Your task to perform on an android device: Open Google Maps and go to "Timeline" Image 0: 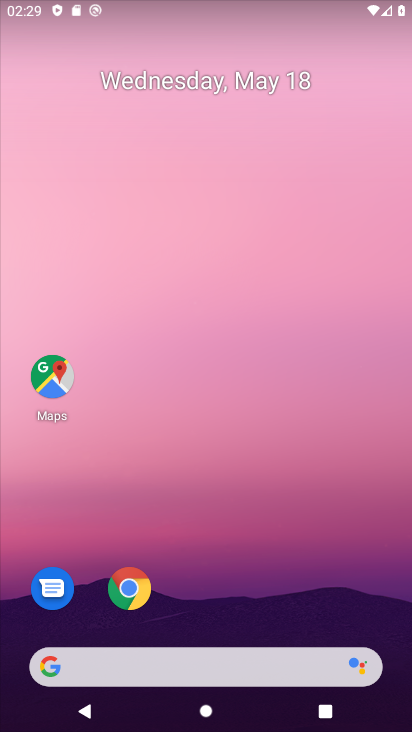
Step 0: click (61, 377)
Your task to perform on an android device: Open Google Maps and go to "Timeline" Image 1: 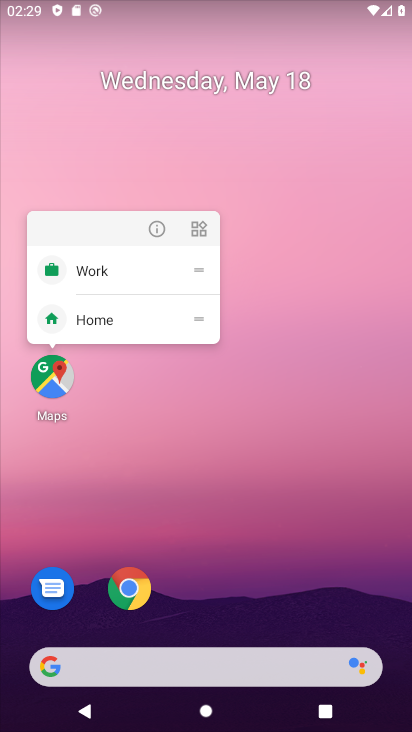
Step 1: click (43, 369)
Your task to perform on an android device: Open Google Maps and go to "Timeline" Image 2: 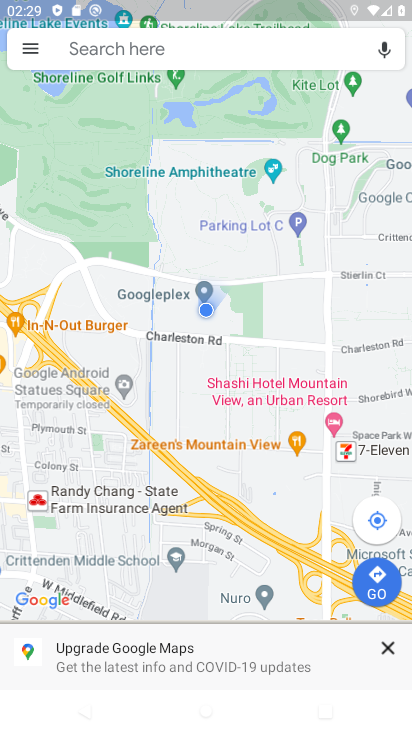
Step 2: click (35, 41)
Your task to perform on an android device: Open Google Maps and go to "Timeline" Image 3: 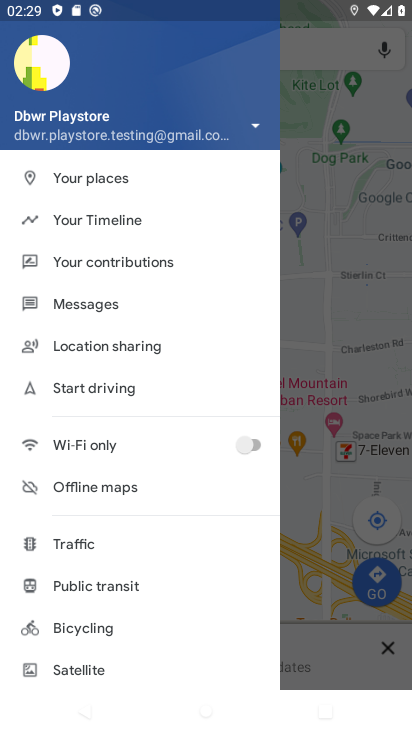
Step 3: click (95, 219)
Your task to perform on an android device: Open Google Maps and go to "Timeline" Image 4: 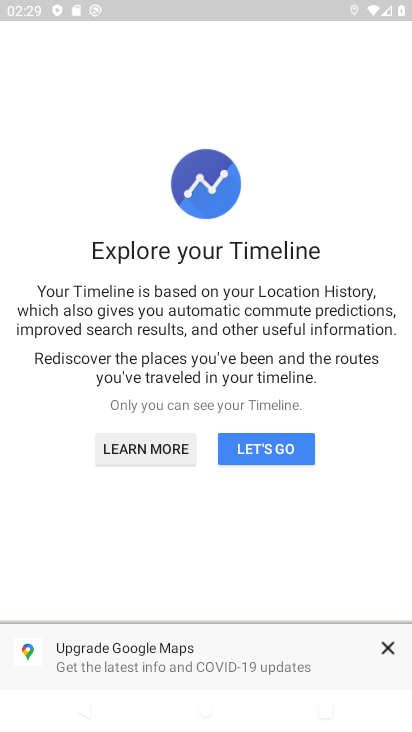
Step 4: click (392, 646)
Your task to perform on an android device: Open Google Maps and go to "Timeline" Image 5: 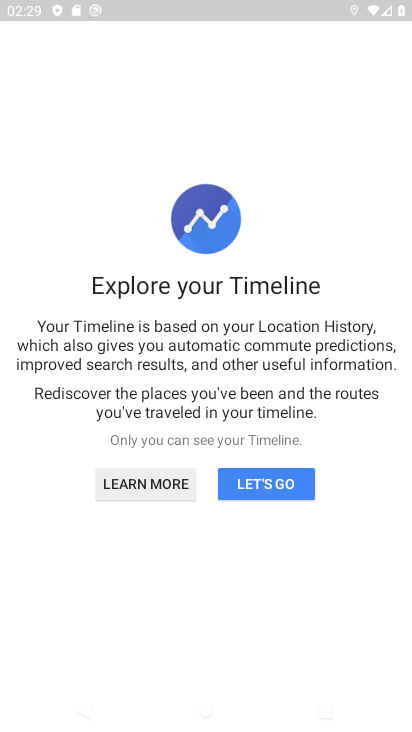
Step 5: click (266, 497)
Your task to perform on an android device: Open Google Maps and go to "Timeline" Image 6: 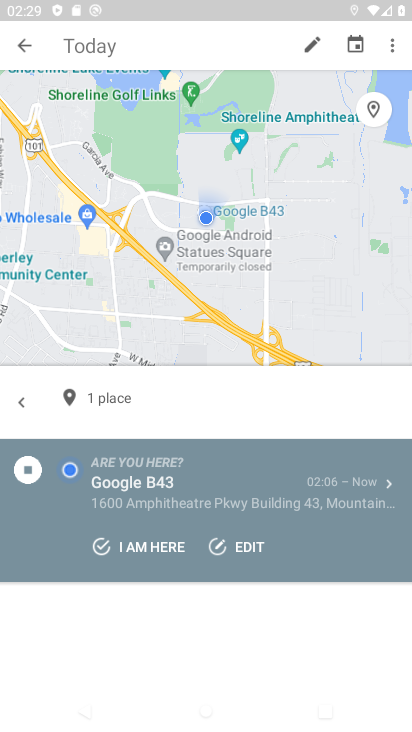
Step 6: task complete